Your task to perform on an android device: Go to display settings Image 0: 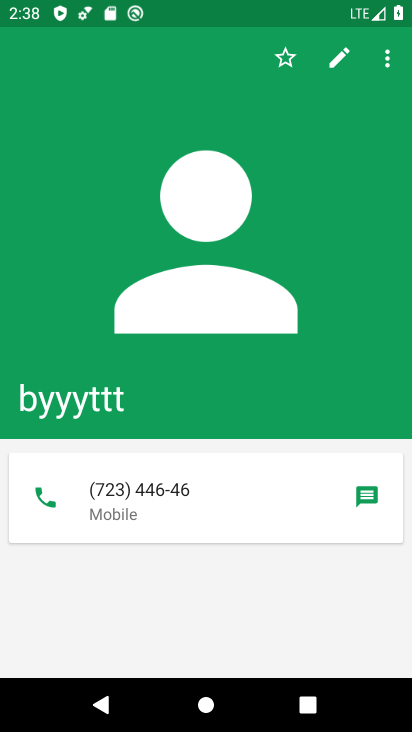
Step 0: press home button
Your task to perform on an android device: Go to display settings Image 1: 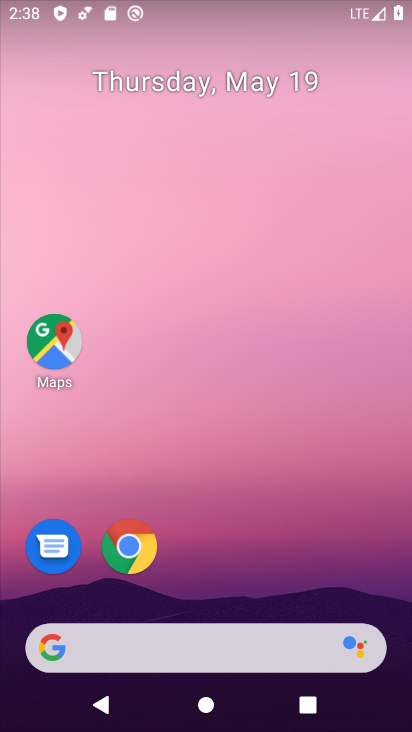
Step 1: drag from (179, 654) to (324, 214)
Your task to perform on an android device: Go to display settings Image 2: 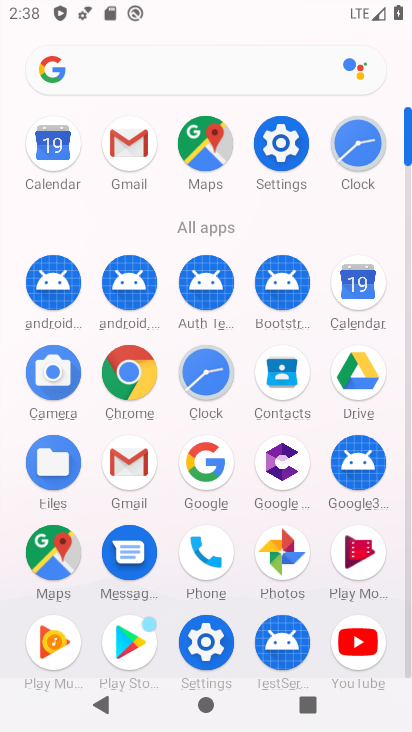
Step 2: click (282, 149)
Your task to perform on an android device: Go to display settings Image 3: 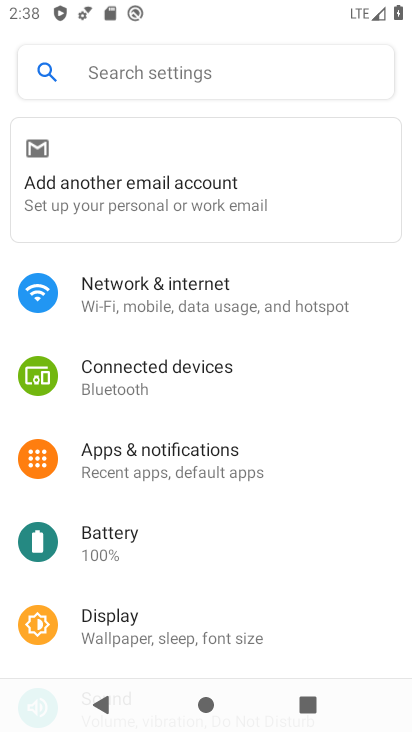
Step 3: click (149, 632)
Your task to perform on an android device: Go to display settings Image 4: 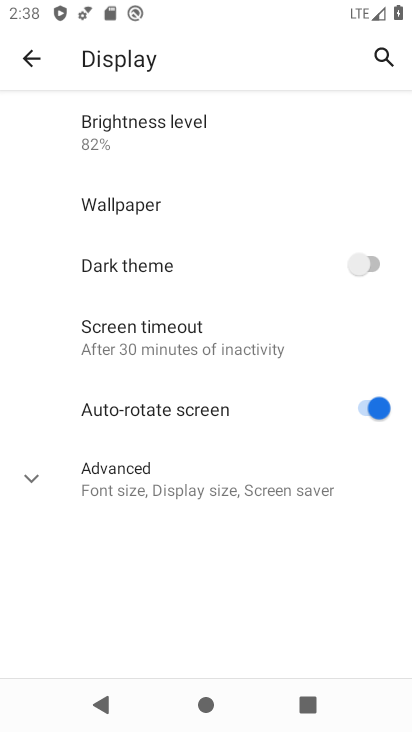
Step 4: task complete